Your task to perform on an android device: delete browsing data in the chrome app Image 0: 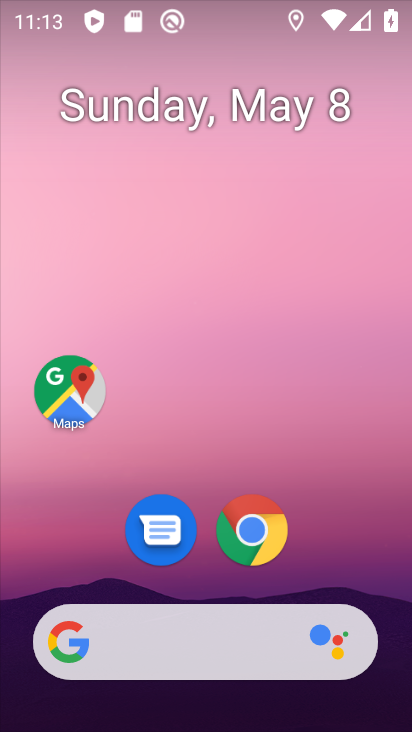
Step 0: drag from (251, 589) to (187, 3)
Your task to perform on an android device: delete browsing data in the chrome app Image 1: 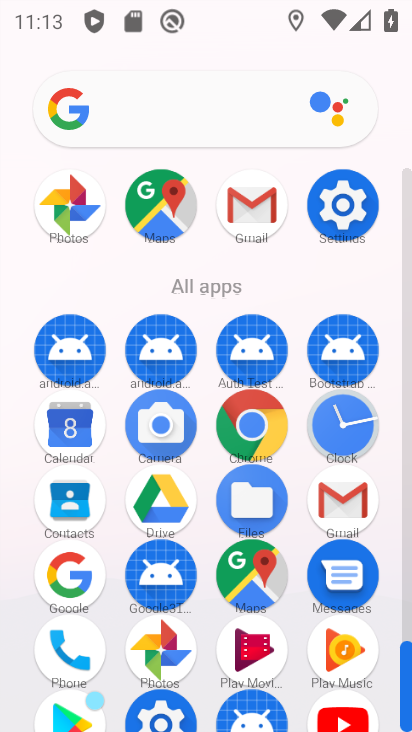
Step 1: click (253, 432)
Your task to perform on an android device: delete browsing data in the chrome app Image 2: 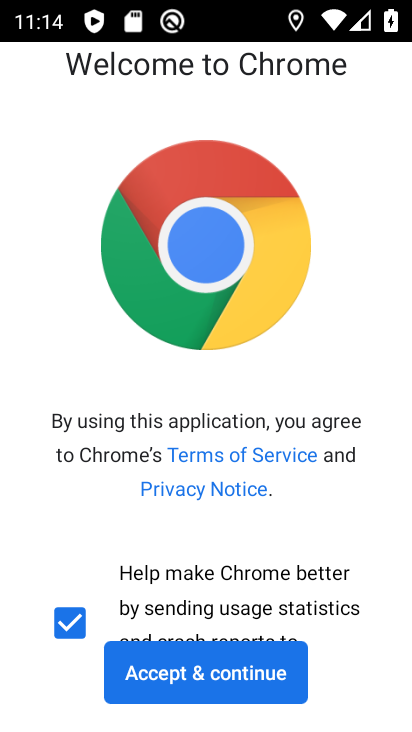
Step 2: click (197, 688)
Your task to perform on an android device: delete browsing data in the chrome app Image 3: 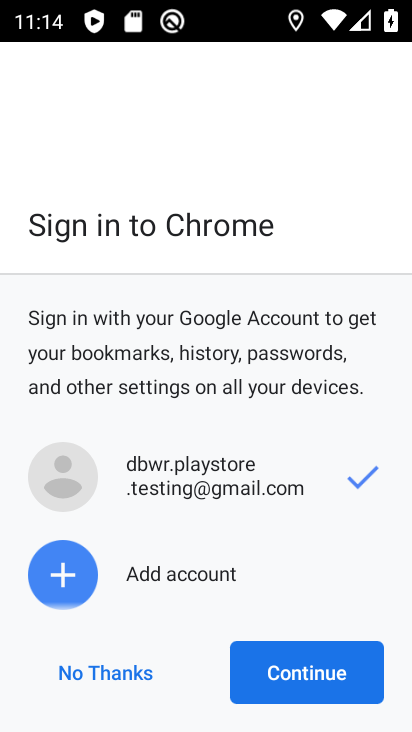
Step 3: click (114, 673)
Your task to perform on an android device: delete browsing data in the chrome app Image 4: 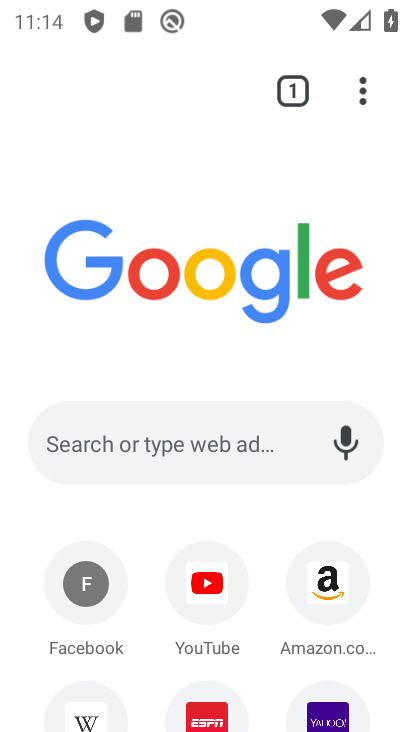
Step 4: drag from (360, 90) to (181, 562)
Your task to perform on an android device: delete browsing data in the chrome app Image 5: 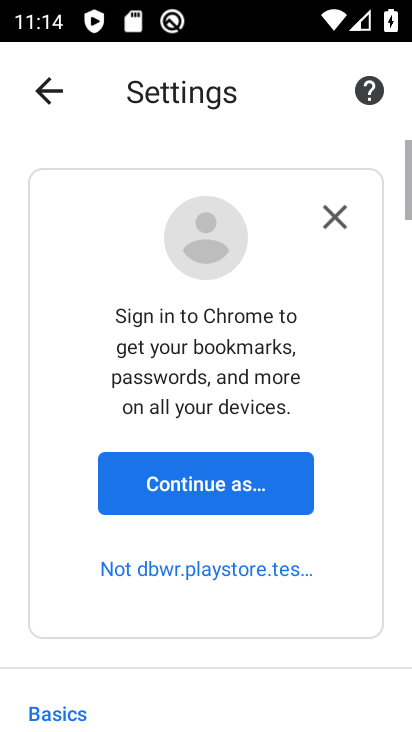
Step 5: drag from (181, 562) to (173, 9)
Your task to perform on an android device: delete browsing data in the chrome app Image 6: 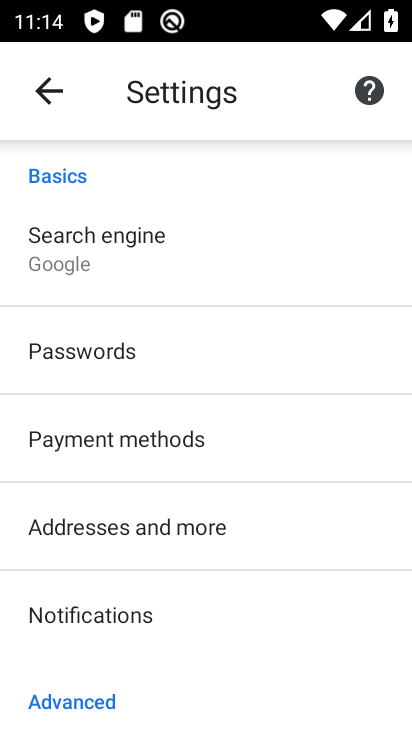
Step 6: drag from (143, 678) to (156, 352)
Your task to perform on an android device: delete browsing data in the chrome app Image 7: 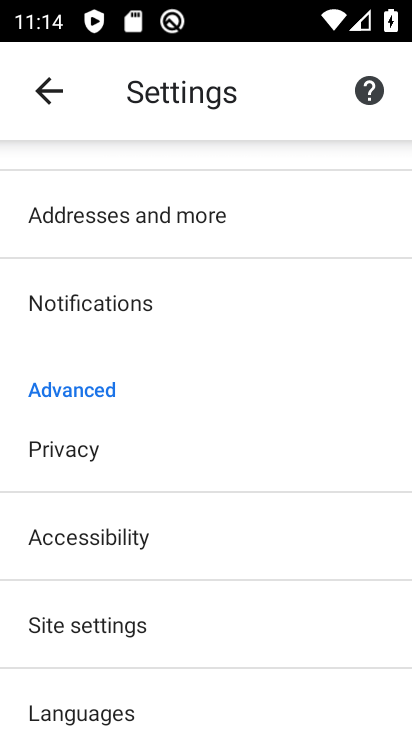
Step 7: click (105, 472)
Your task to perform on an android device: delete browsing data in the chrome app Image 8: 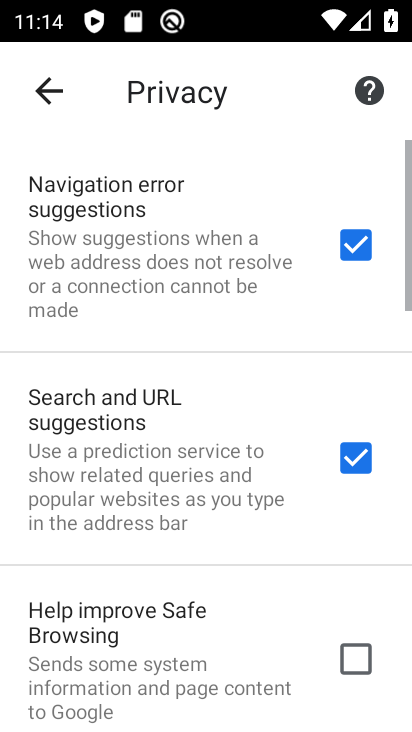
Step 8: drag from (222, 698) to (200, 141)
Your task to perform on an android device: delete browsing data in the chrome app Image 9: 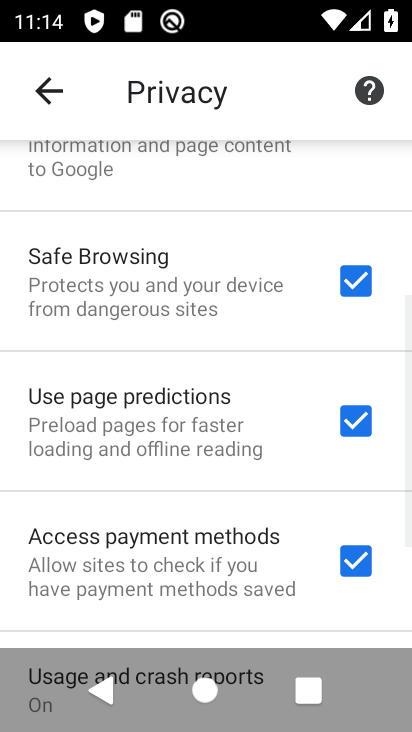
Step 9: drag from (193, 602) to (189, 87)
Your task to perform on an android device: delete browsing data in the chrome app Image 10: 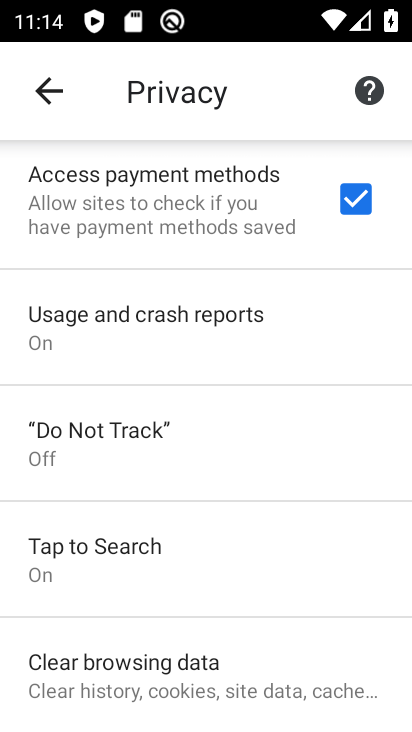
Step 10: click (243, 679)
Your task to perform on an android device: delete browsing data in the chrome app Image 11: 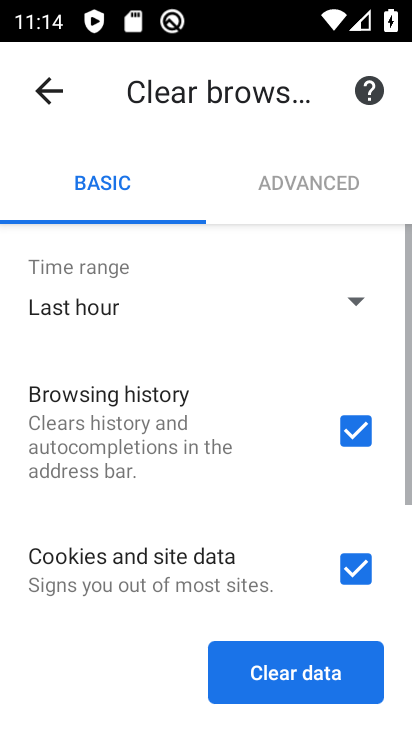
Step 11: click (243, 679)
Your task to perform on an android device: delete browsing data in the chrome app Image 12: 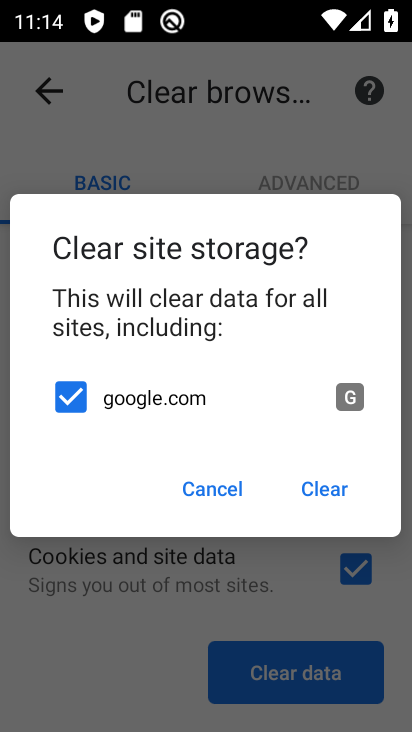
Step 12: click (330, 493)
Your task to perform on an android device: delete browsing data in the chrome app Image 13: 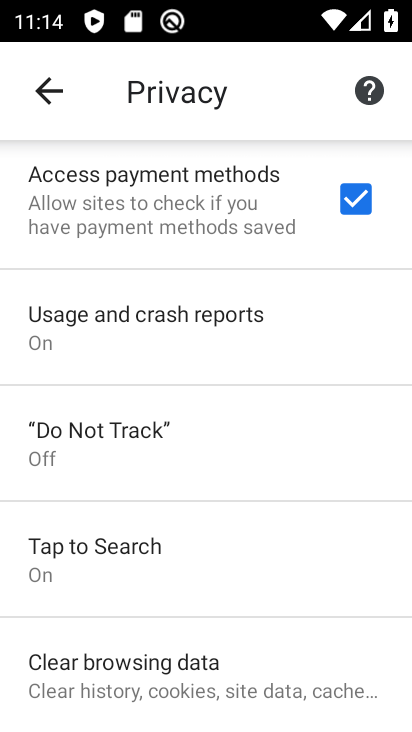
Step 13: task complete